Your task to perform on an android device: Open wifi settings Image 0: 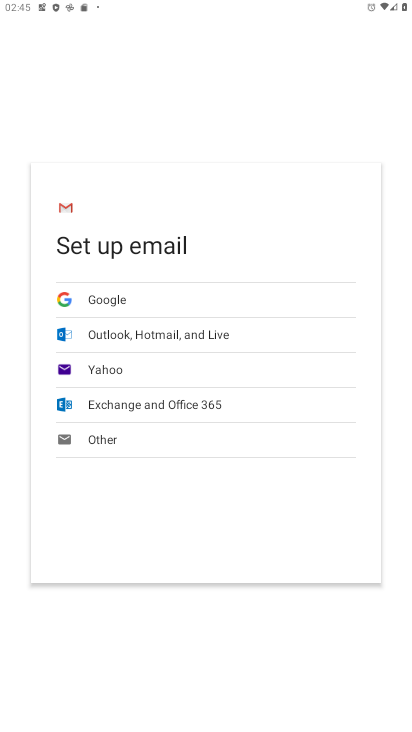
Step 0: press home button
Your task to perform on an android device: Open wifi settings Image 1: 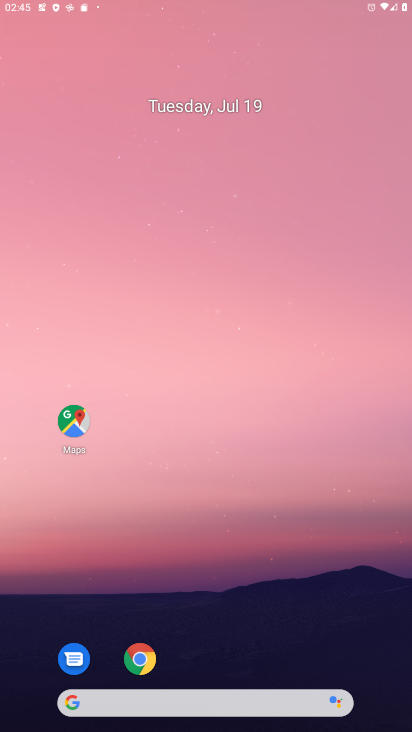
Step 1: drag from (310, 628) to (230, 662)
Your task to perform on an android device: Open wifi settings Image 2: 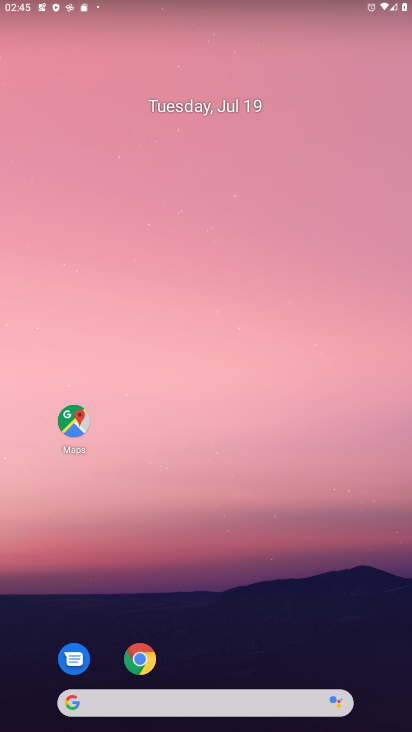
Step 2: drag from (337, 7) to (292, 604)
Your task to perform on an android device: Open wifi settings Image 3: 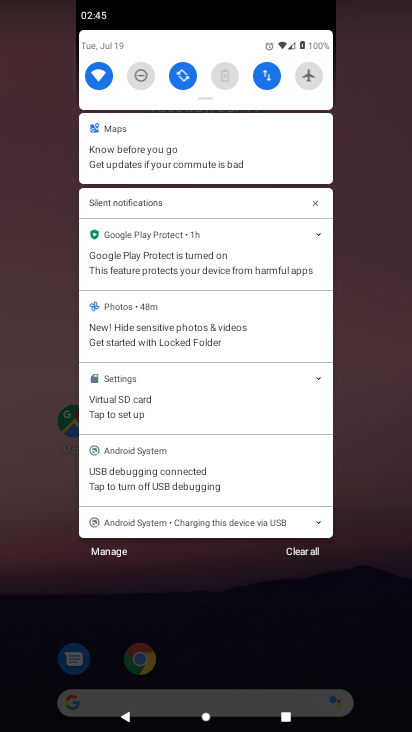
Step 3: click (106, 75)
Your task to perform on an android device: Open wifi settings Image 4: 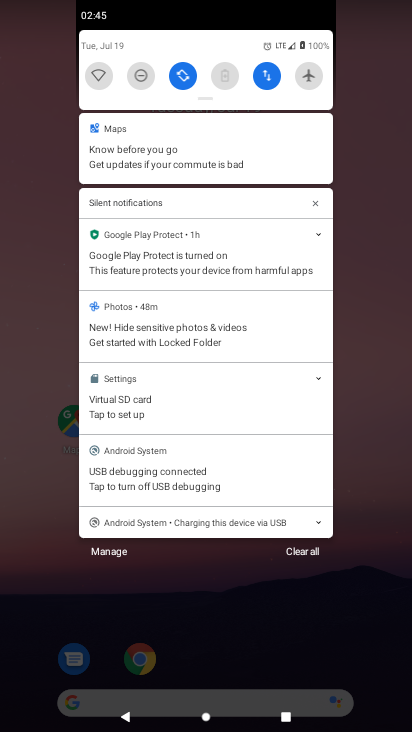
Step 4: click (106, 75)
Your task to perform on an android device: Open wifi settings Image 5: 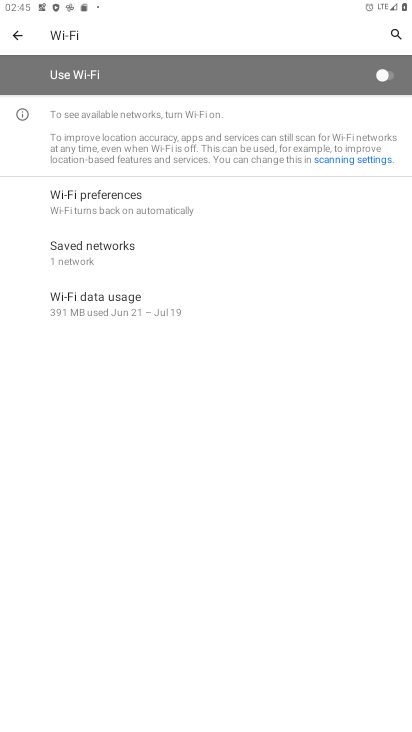
Step 5: click (269, 82)
Your task to perform on an android device: Open wifi settings Image 6: 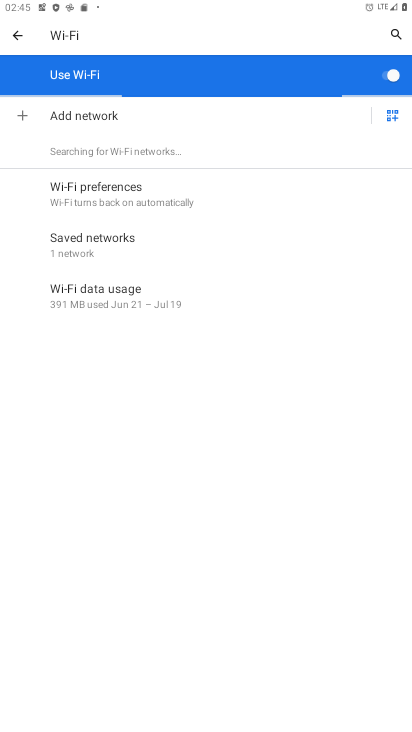
Step 6: task complete